Your task to perform on an android device: Set the phone to "Do not disturb". Image 0: 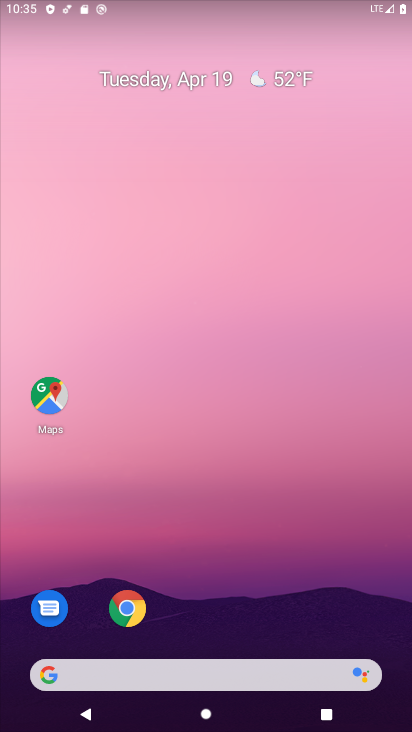
Step 0: click (357, 560)
Your task to perform on an android device: Set the phone to "Do not disturb". Image 1: 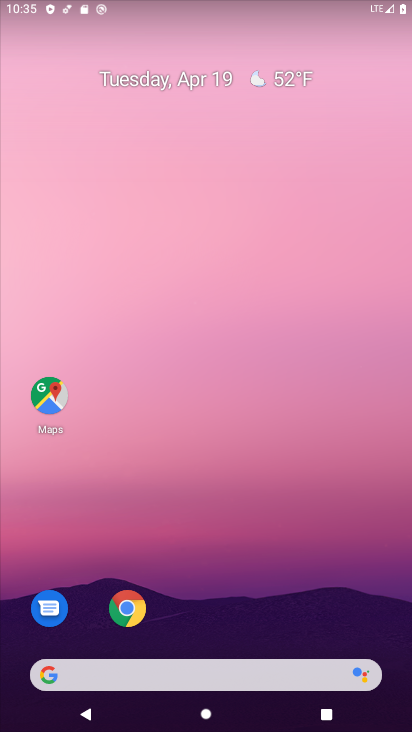
Step 1: drag from (320, 602) to (272, 199)
Your task to perform on an android device: Set the phone to "Do not disturb". Image 2: 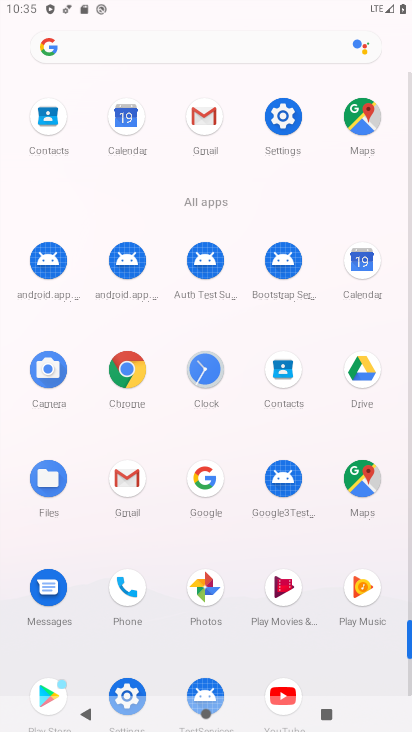
Step 2: click (285, 135)
Your task to perform on an android device: Set the phone to "Do not disturb". Image 3: 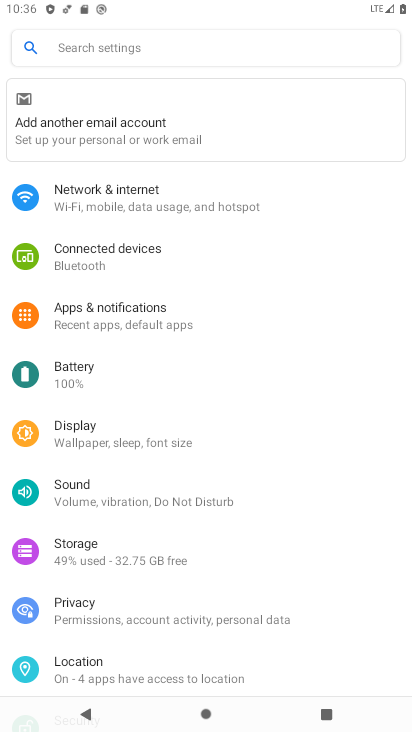
Step 3: click (198, 499)
Your task to perform on an android device: Set the phone to "Do not disturb". Image 4: 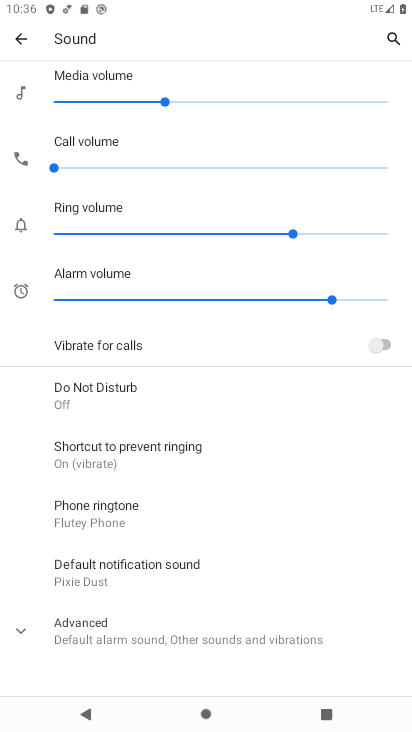
Step 4: click (269, 399)
Your task to perform on an android device: Set the phone to "Do not disturb". Image 5: 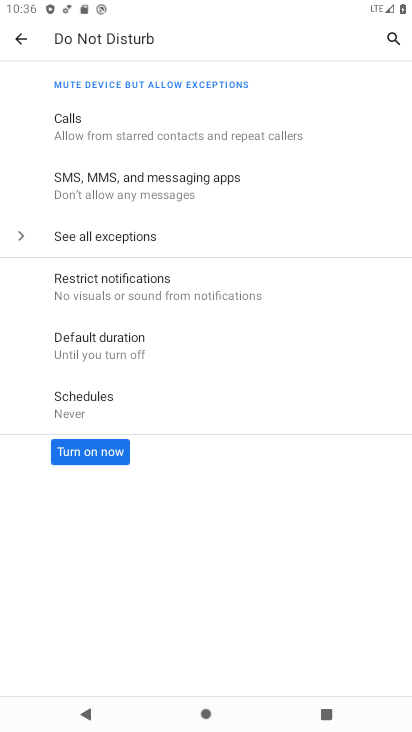
Step 5: click (128, 447)
Your task to perform on an android device: Set the phone to "Do not disturb". Image 6: 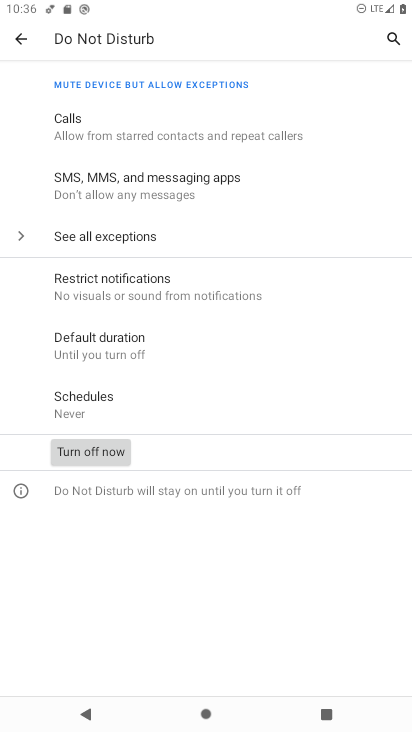
Step 6: task complete